Your task to perform on an android device: Open network settings Image 0: 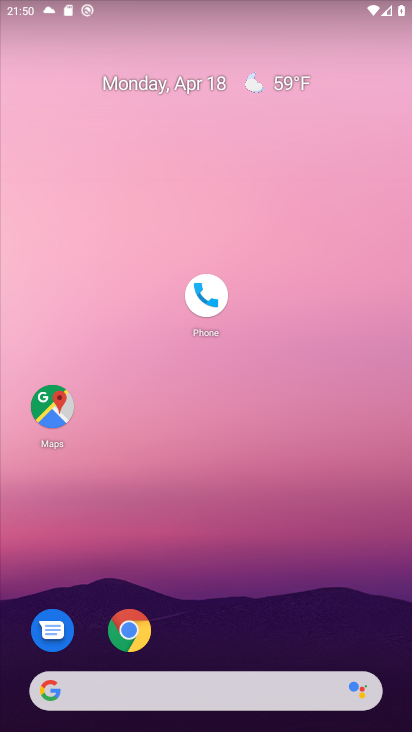
Step 0: drag from (264, 639) to (285, 58)
Your task to perform on an android device: Open network settings Image 1: 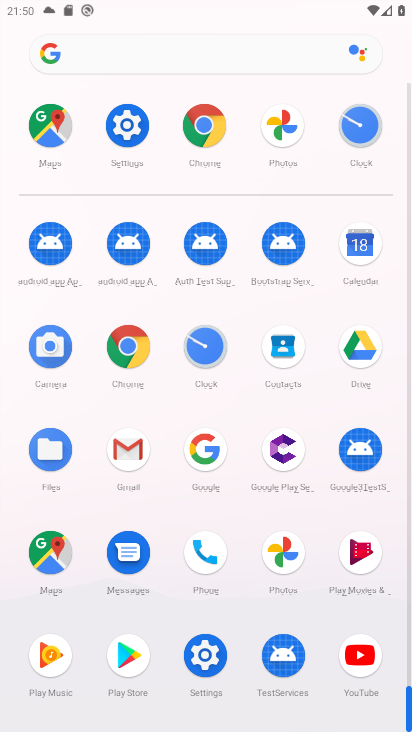
Step 1: click (138, 119)
Your task to perform on an android device: Open network settings Image 2: 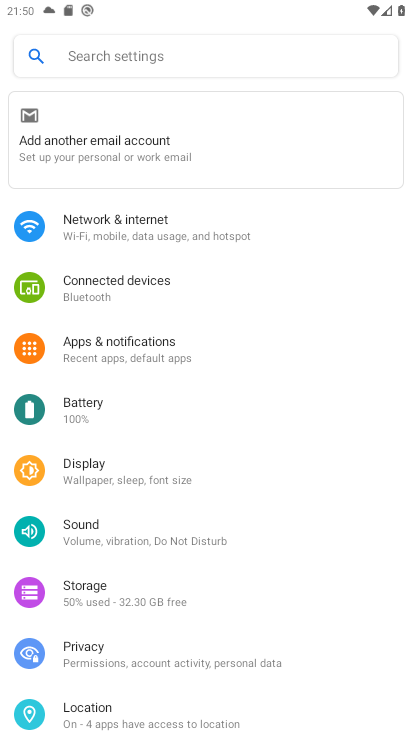
Step 2: click (150, 237)
Your task to perform on an android device: Open network settings Image 3: 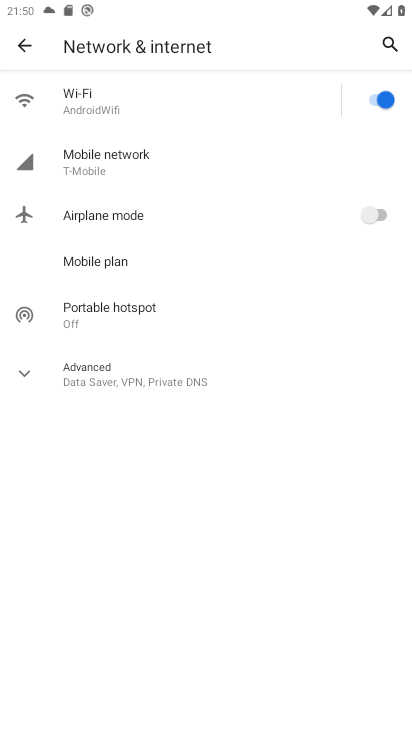
Step 3: click (45, 372)
Your task to perform on an android device: Open network settings Image 4: 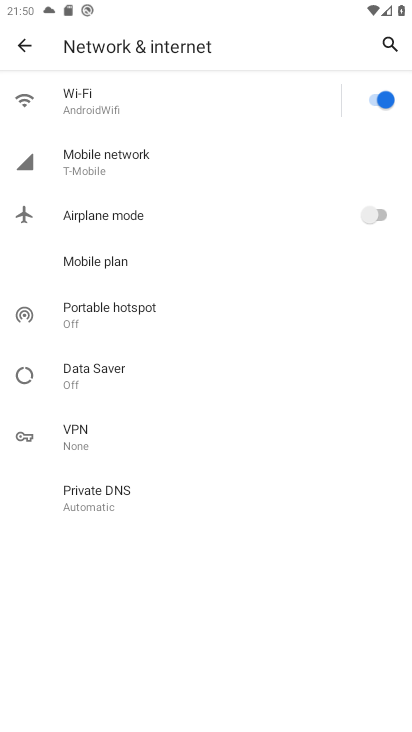
Step 4: task complete